Your task to perform on an android device: Show me recent news Image 0: 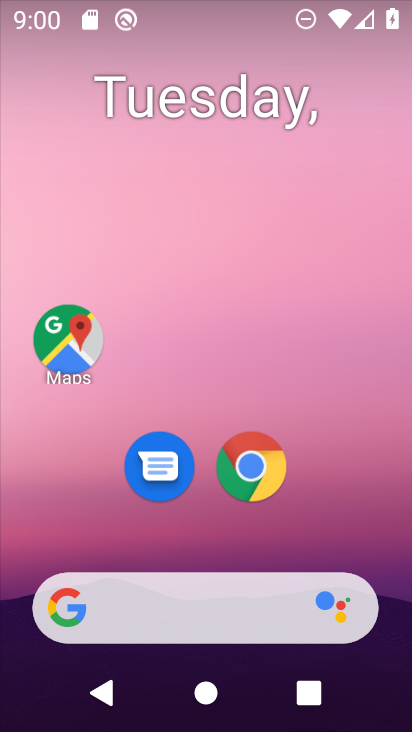
Step 0: click (186, 618)
Your task to perform on an android device: Show me recent news Image 1: 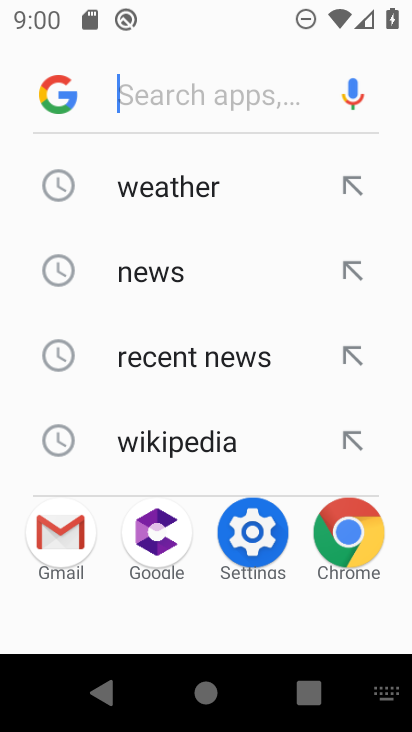
Step 1: click (241, 361)
Your task to perform on an android device: Show me recent news Image 2: 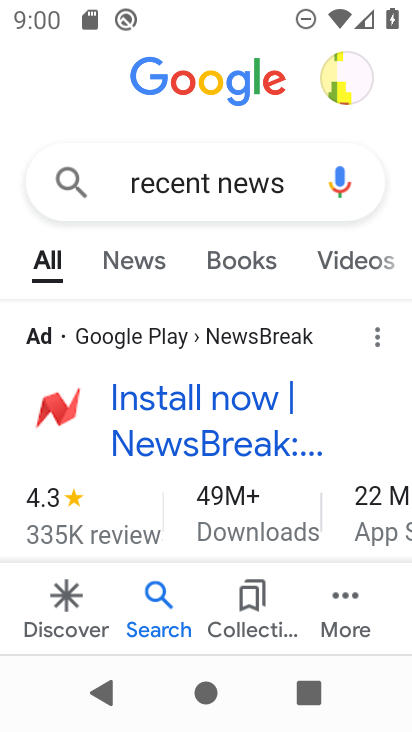
Step 2: task complete